Your task to perform on an android device: Open eBay Image 0: 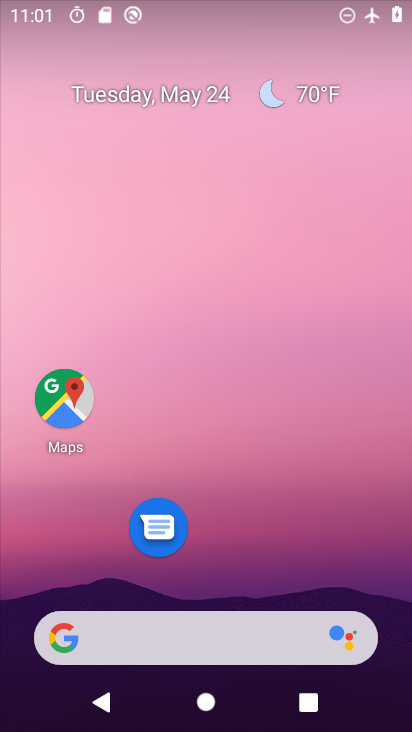
Step 0: drag from (254, 557) to (263, 149)
Your task to perform on an android device: Open eBay Image 1: 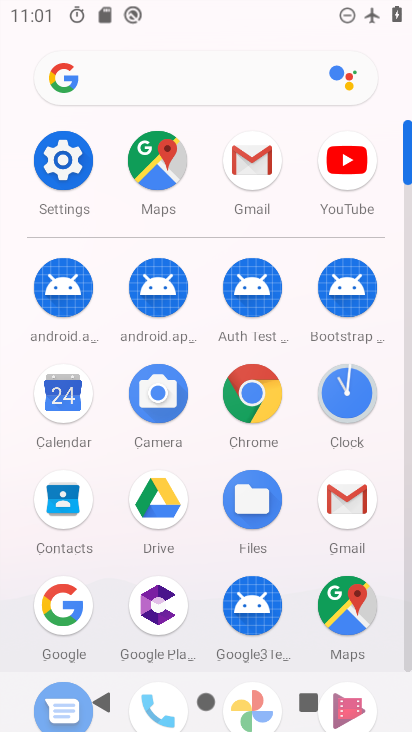
Step 1: click (259, 390)
Your task to perform on an android device: Open eBay Image 2: 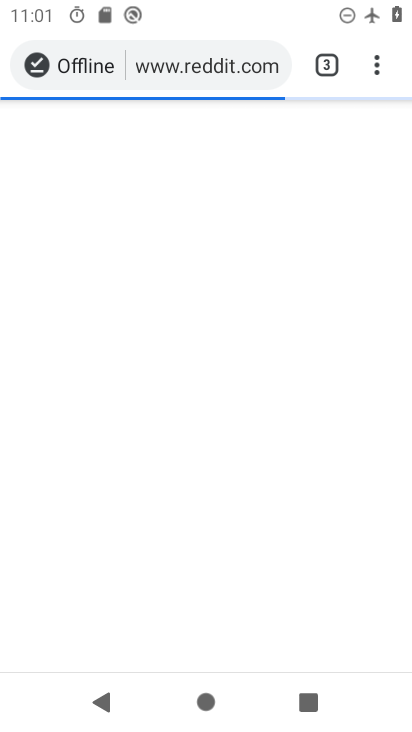
Step 2: press home button
Your task to perform on an android device: Open eBay Image 3: 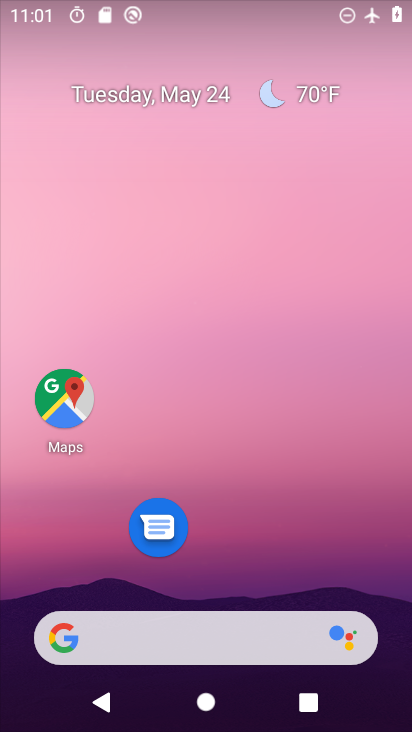
Step 3: drag from (237, 537) to (221, 146)
Your task to perform on an android device: Open eBay Image 4: 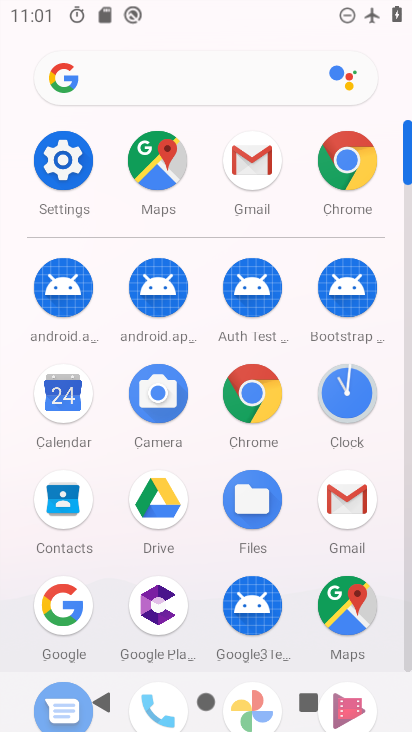
Step 4: click (65, 599)
Your task to perform on an android device: Open eBay Image 5: 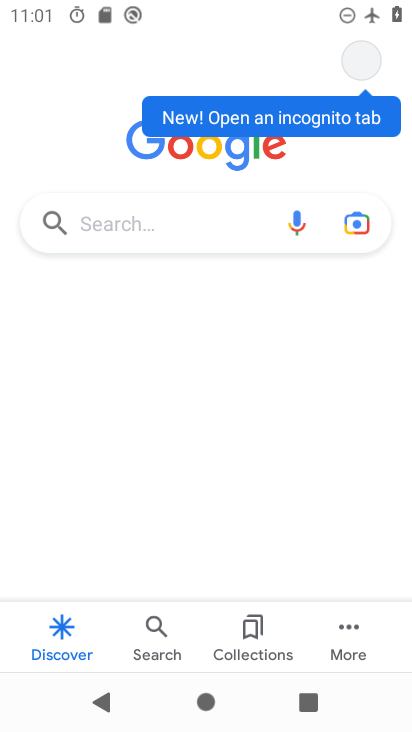
Step 5: click (164, 215)
Your task to perform on an android device: Open eBay Image 6: 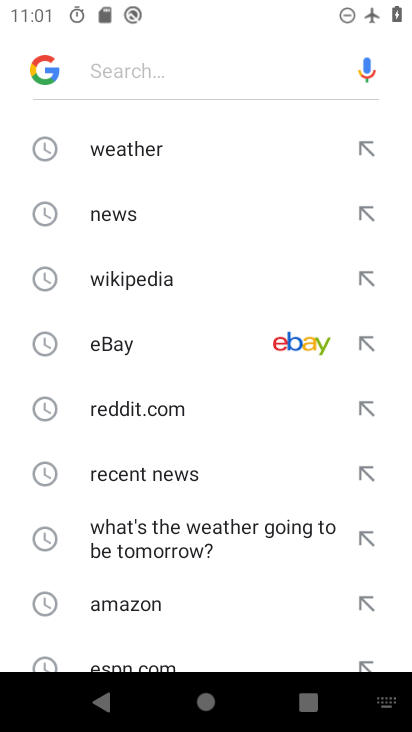
Step 6: click (94, 341)
Your task to perform on an android device: Open eBay Image 7: 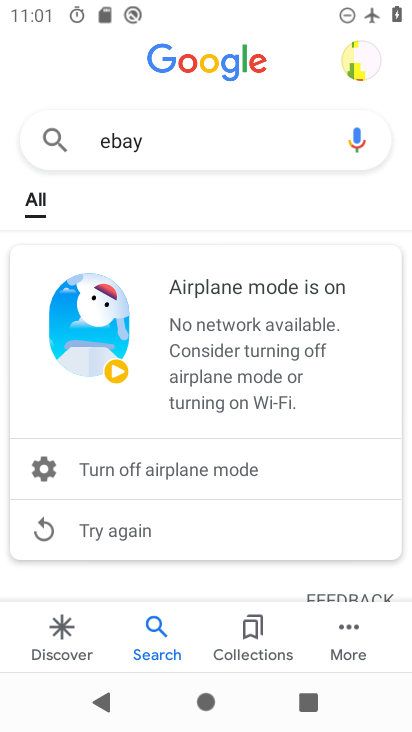
Step 7: task complete